Your task to perform on an android device: change alarm snooze length Image 0: 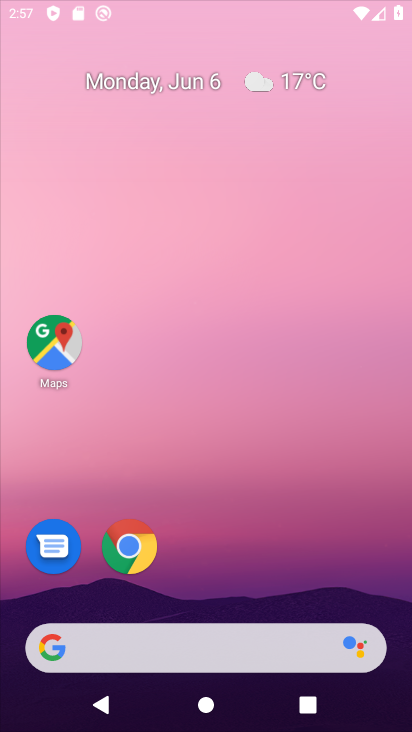
Step 0: click (336, 39)
Your task to perform on an android device: change alarm snooze length Image 1: 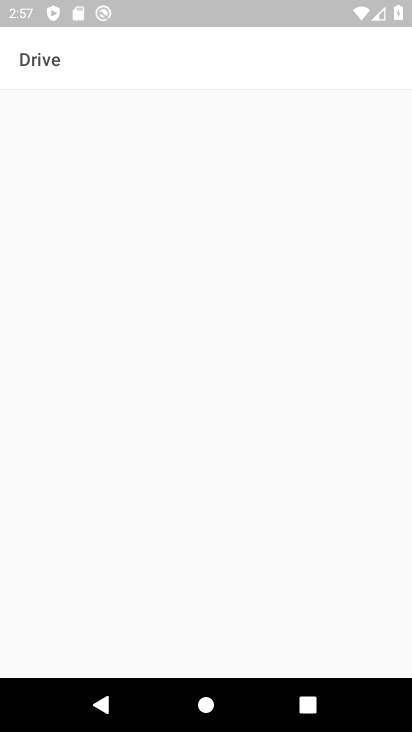
Step 1: press home button
Your task to perform on an android device: change alarm snooze length Image 2: 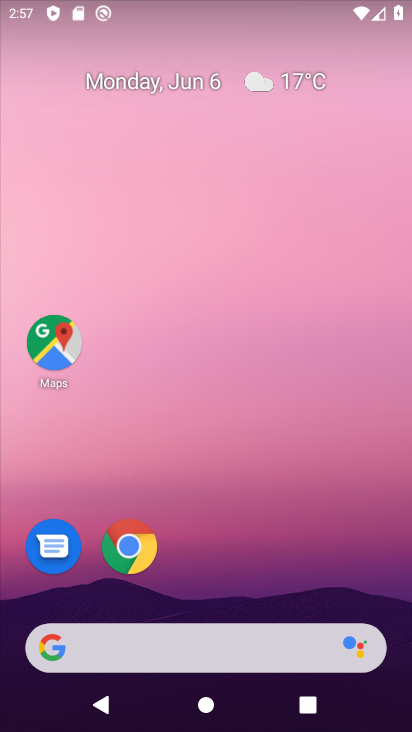
Step 2: drag from (276, 608) to (264, 17)
Your task to perform on an android device: change alarm snooze length Image 3: 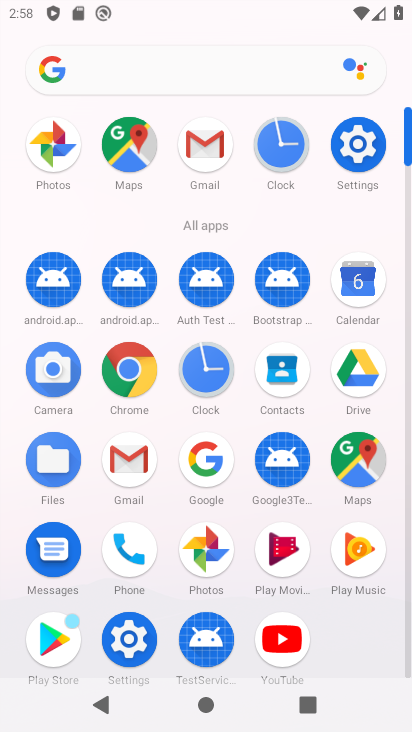
Step 3: click (266, 152)
Your task to perform on an android device: change alarm snooze length Image 4: 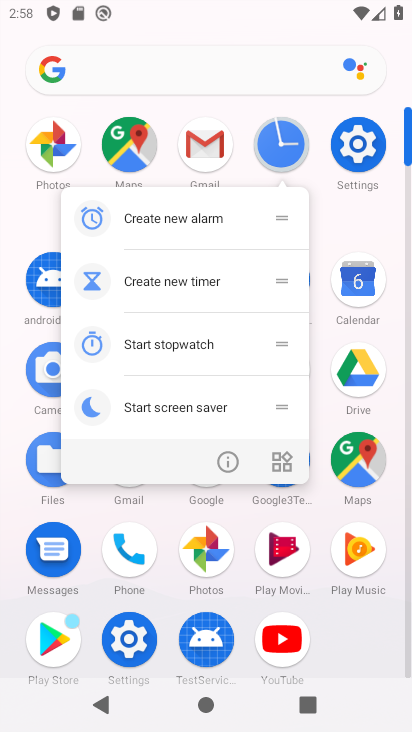
Step 4: click (270, 140)
Your task to perform on an android device: change alarm snooze length Image 5: 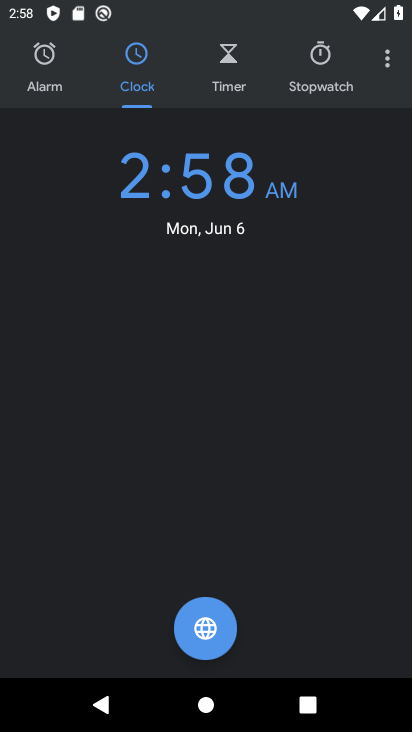
Step 5: click (386, 62)
Your task to perform on an android device: change alarm snooze length Image 6: 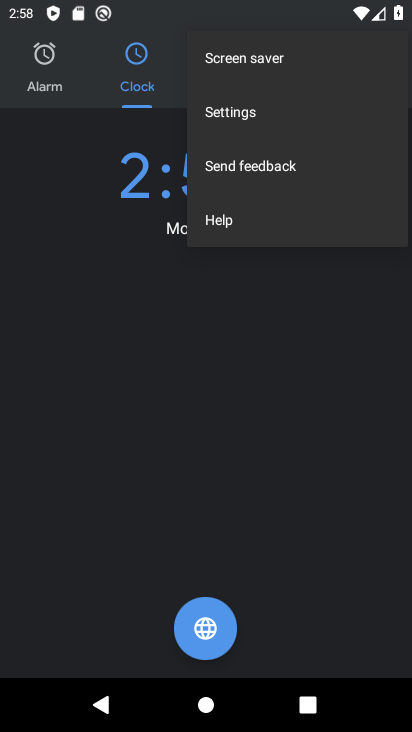
Step 6: click (210, 113)
Your task to perform on an android device: change alarm snooze length Image 7: 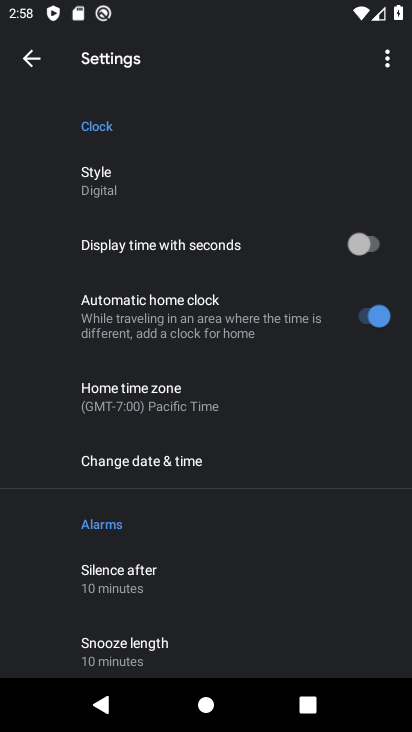
Step 7: drag from (216, 621) to (223, 169)
Your task to perform on an android device: change alarm snooze length Image 8: 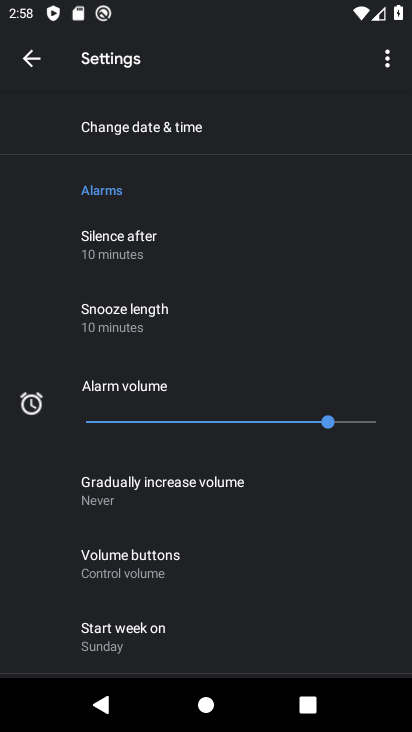
Step 8: click (154, 313)
Your task to perform on an android device: change alarm snooze length Image 9: 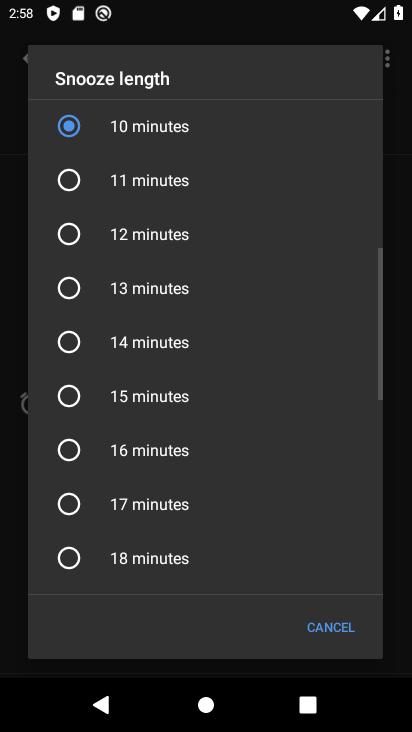
Step 9: click (108, 349)
Your task to perform on an android device: change alarm snooze length Image 10: 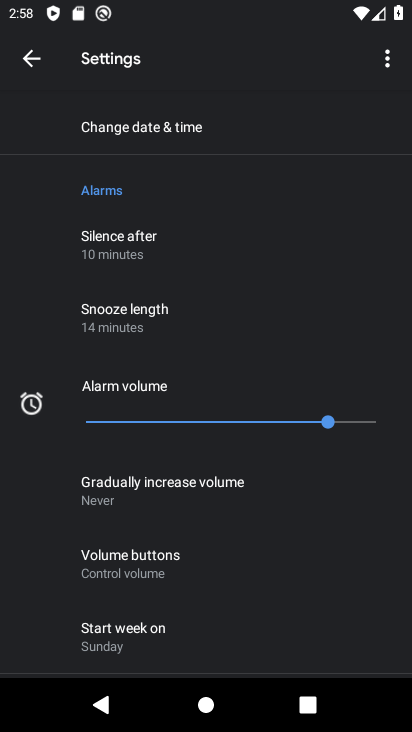
Step 10: task complete